Your task to perform on an android device: turn on priority inbox in the gmail app Image 0: 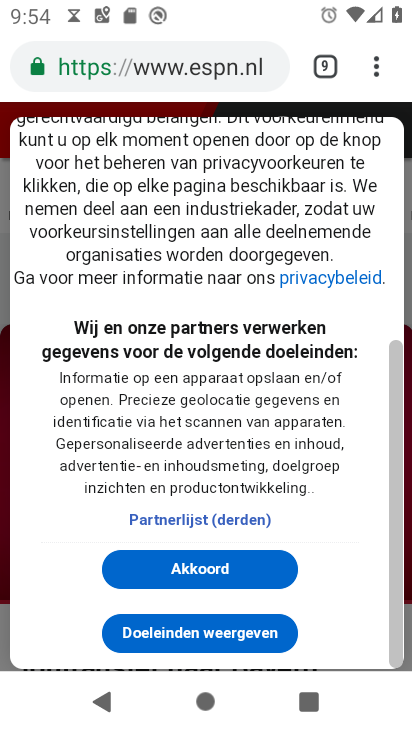
Step 0: press home button
Your task to perform on an android device: turn on priority inbox in the gmail app Image 1: 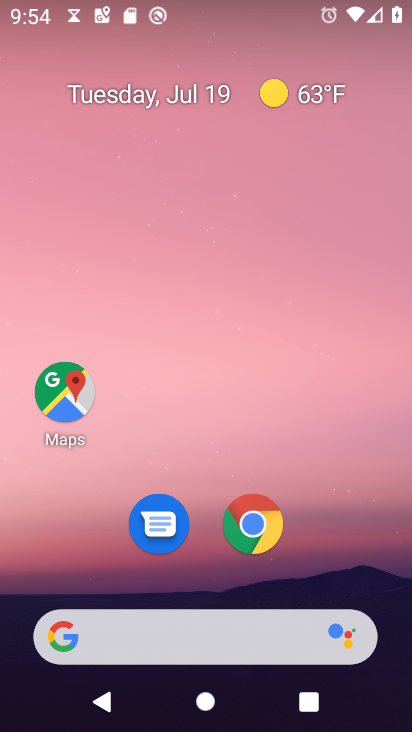
Step 1: drag from (258, 307) to (285, 171)
Your task to perform on an android device: turn on priority inbox in the gmail app Image 2: 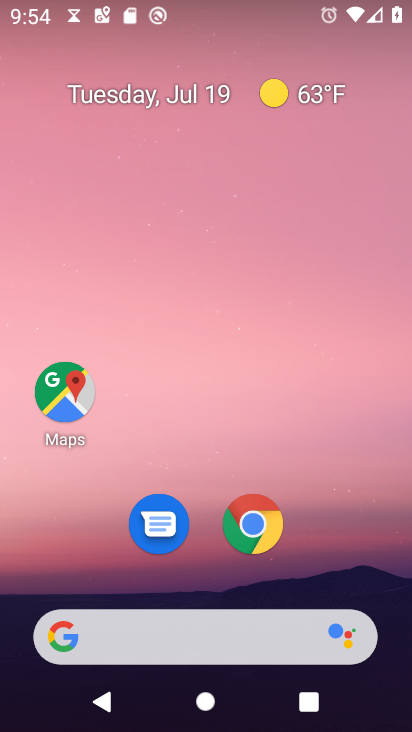
Step 2: drag from (223, 639) to (326, 122)
Your task to perform on an android device: turn on priority inbox in the gmail app Image 3: 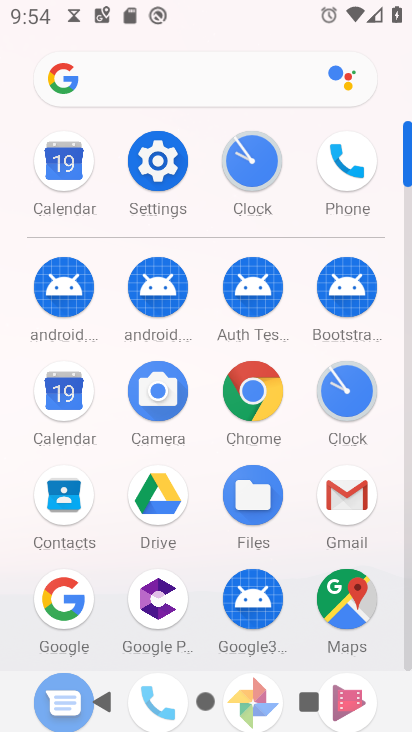
Step 3: click (335, 491)
Your task to perform on an android device: turn on priority inbox in the gmail app Image 4: 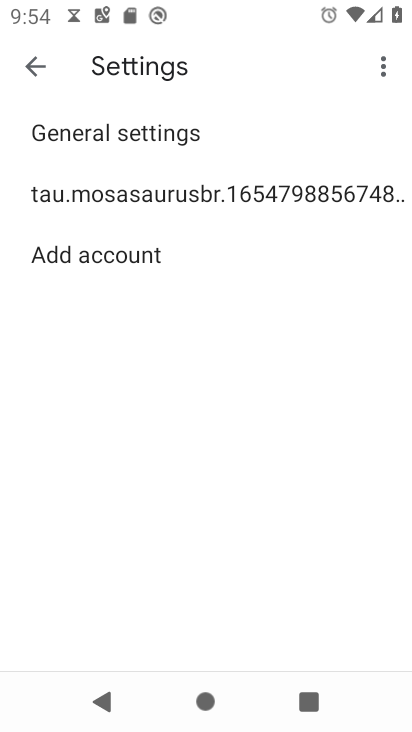
Step 4: click (250, 193)
Your task to perform on an android device: turn on priority inbox in the gmail app Image 5: 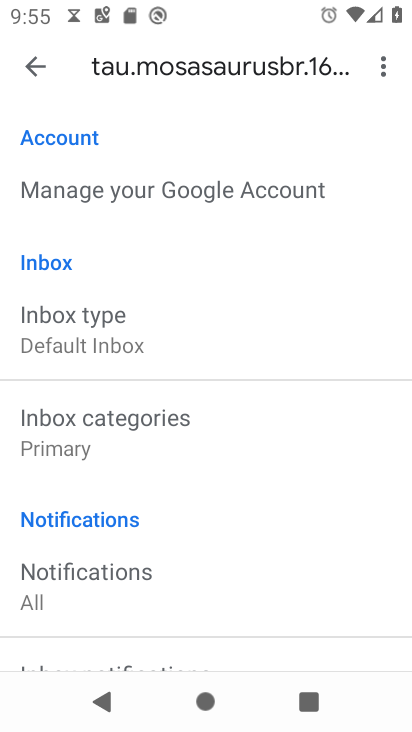
Step 5: click (113, 331)
Your task to perform on an android device: turn on priority inbox in the gmail app Image 6: 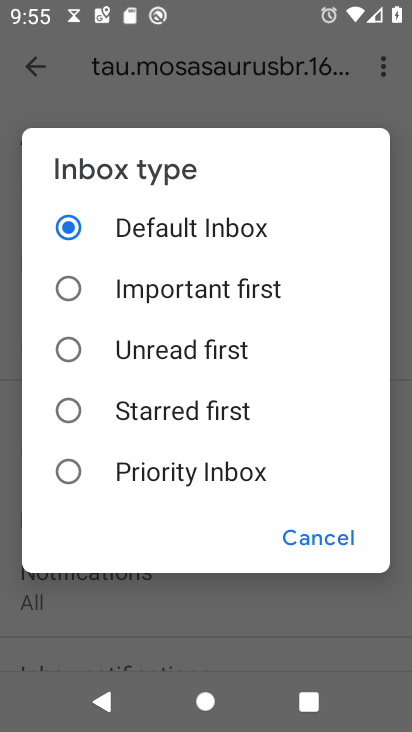
Step 6: click (71, 474)
Your task to perform on an android device: turn on priority inbox in the gmail app Image 7: 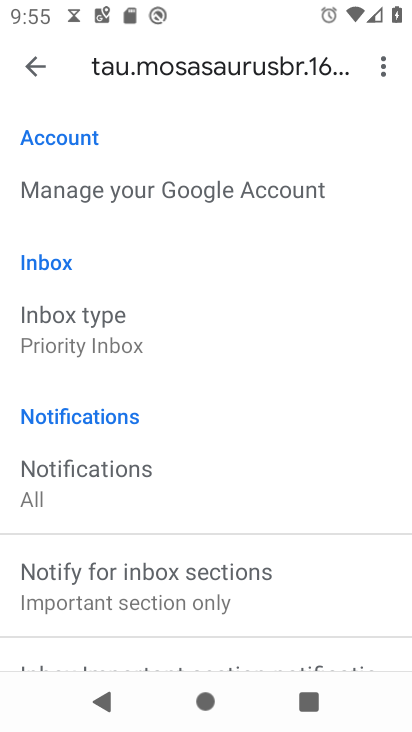
Step 7: task complete